Your task to perform on an android device: Open location settings Image 0: 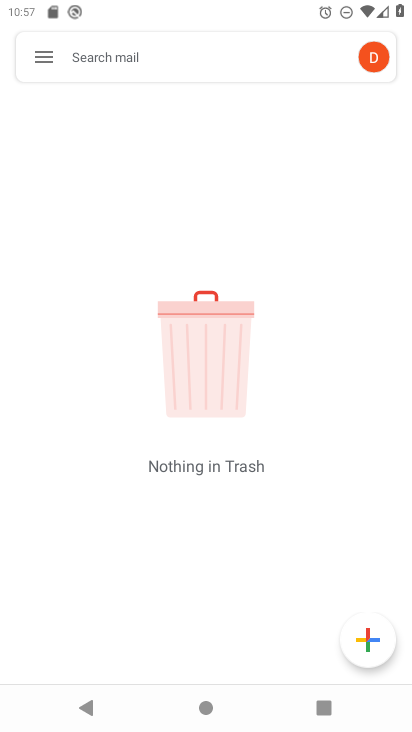
Step 0: task complete